Your task to perform on an android device: Go to Google Image 0: 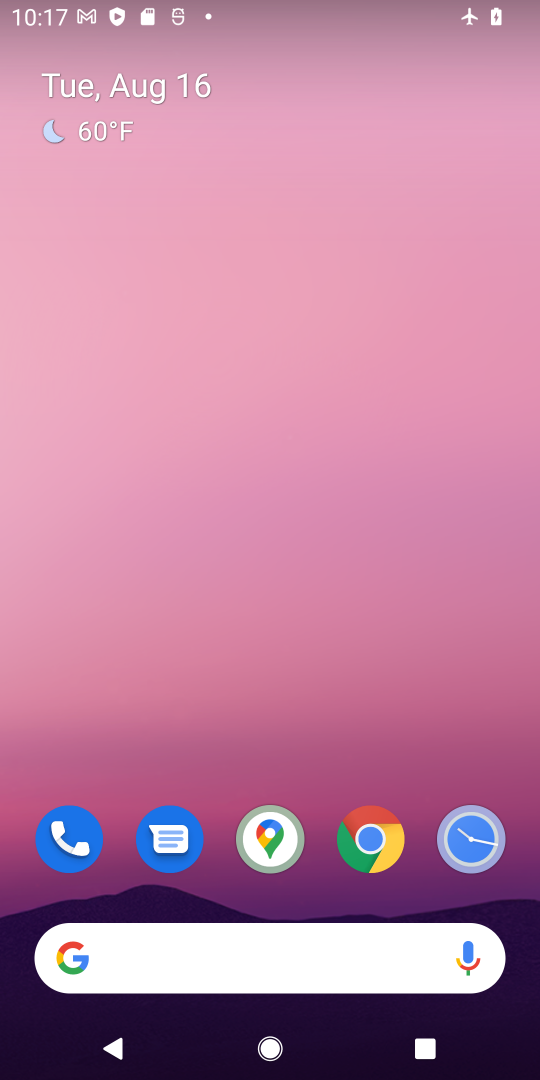
Step 0: click (71, 949)
Your task to perform on an android device: Go to Google Image 1: 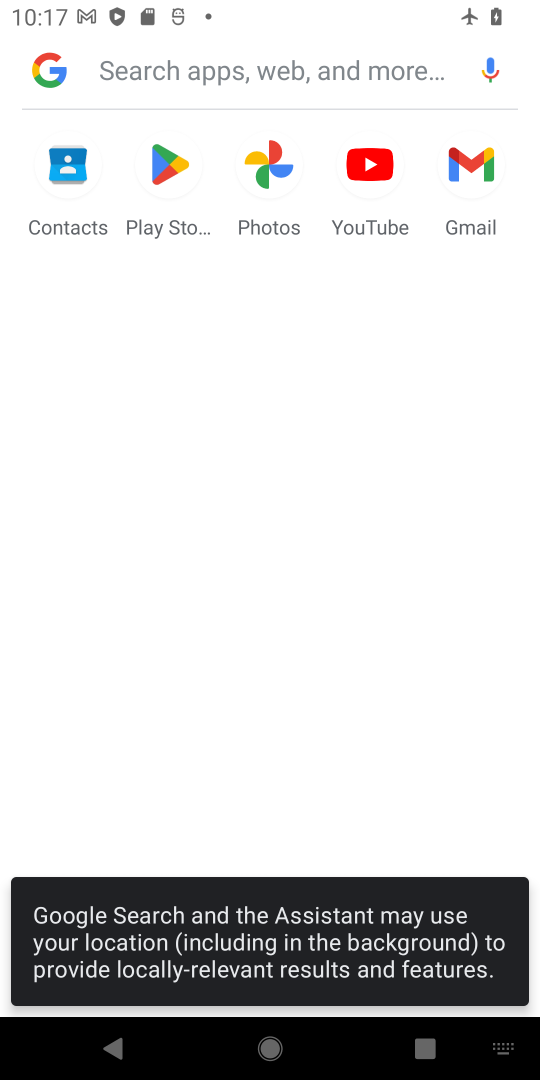
Step 1: click (50, 64)
Your task to perform on an android device: Go to Google Image 2: 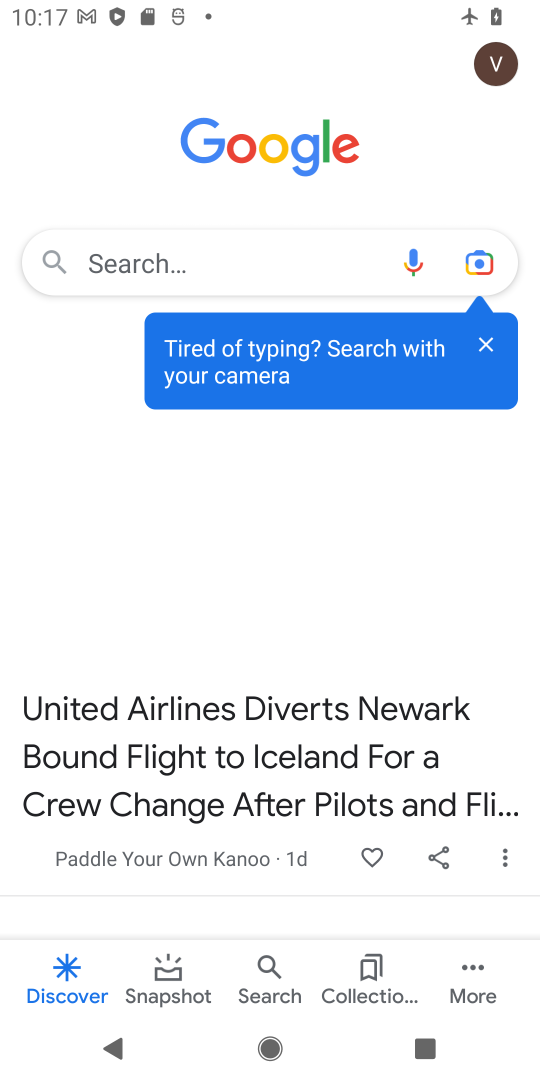
Step 2: task complete